Your task to perform on an android device: check the backup settings in the google photos Image 0: 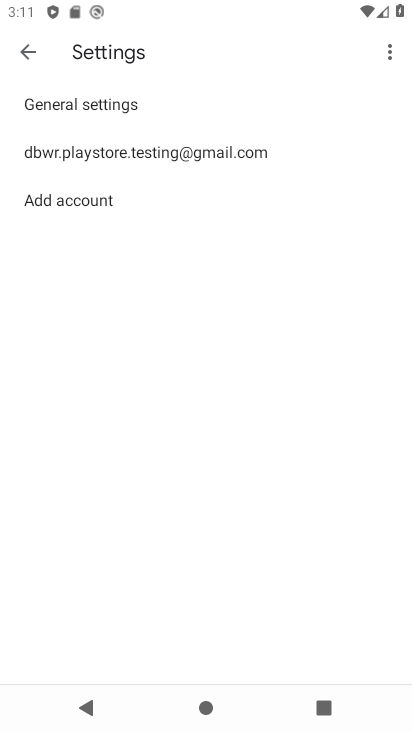
Step 0: press home button
Your task to perform on an android device: check the backup settings in the google photos Image 1: 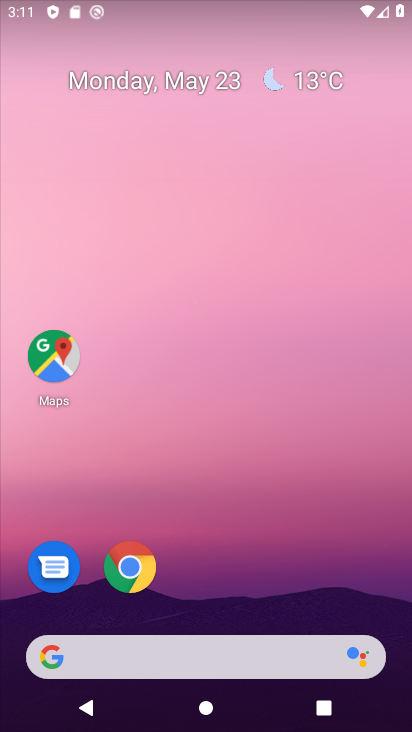
Step 1: drag from (258, 578) to (199, 43)
Your task to perform on an android device: check the backup settings in the google photos Image 2: 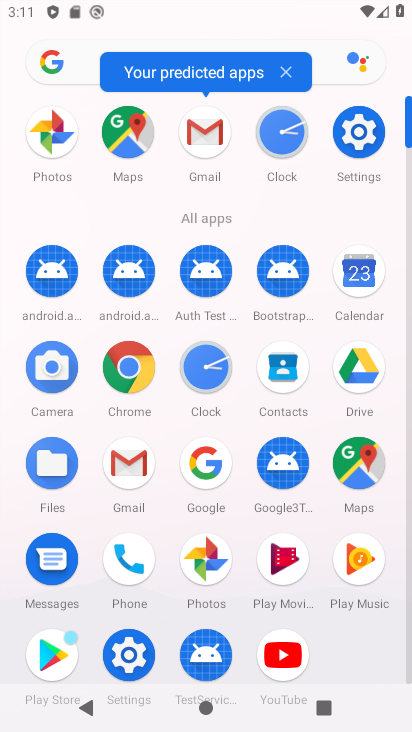
Step 2: click (37, 117)
Your task to perform on an android device: check the backup settings in the google photos Image 3: 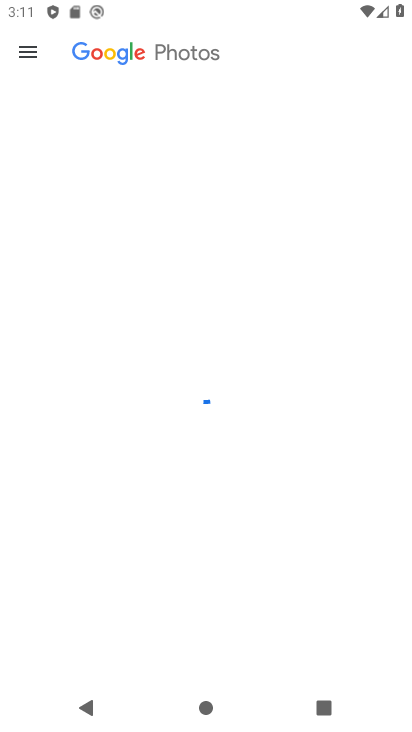
Step 3: click (19, 31)
Your task to perform on an android device: check the backup settings in the google photos Image 4: 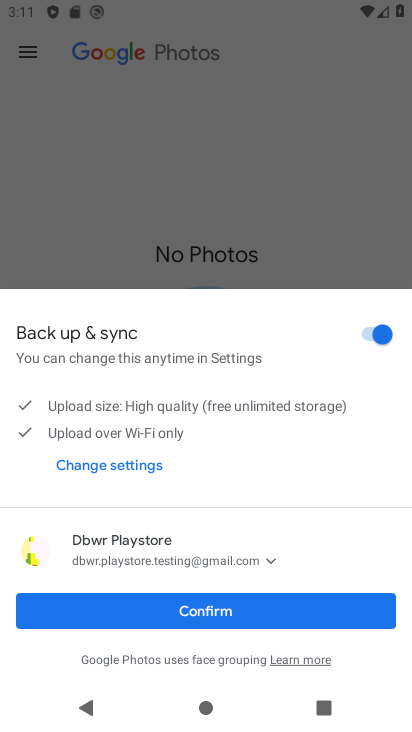
Step 4: click (196, 604)
Your task to perform on an android device: check the backup settings in the google photos Image 5: 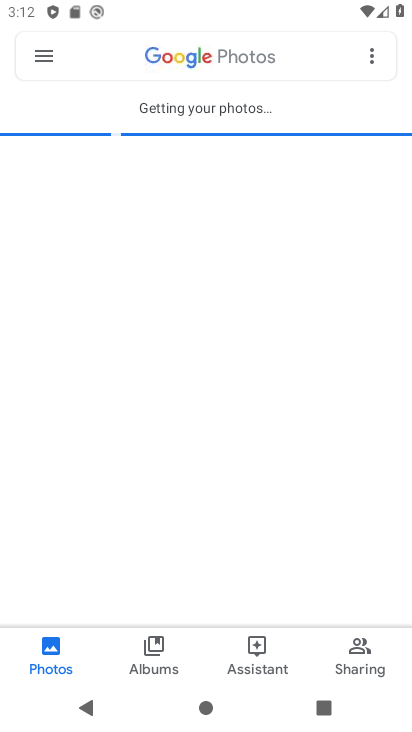
Step 5: click (45, 51)
Your task to perform on an android device: check the backup settings in the google photos Image 6: 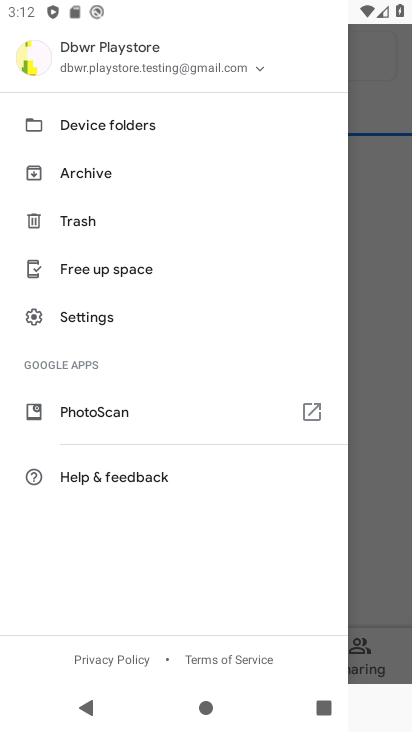
Step 6: click (82, 321)
Your task to perform on an android device: check the backup settings in the google photos Image 7: 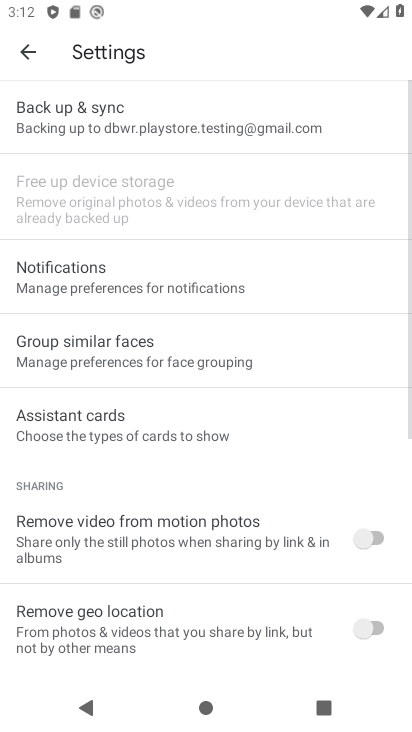
Step 7: click (122, 94)
Your task to perform on an android device: check the backup settings in the google photos Image 8: 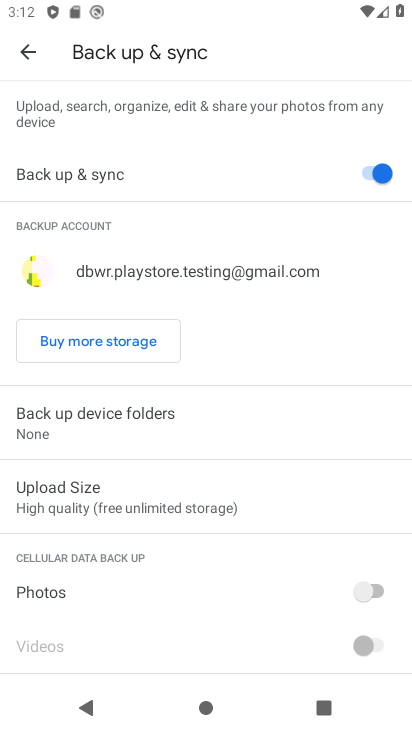
Step 8: task complete